Your task to perform on an android device: star an email in the gmail app Image 0: 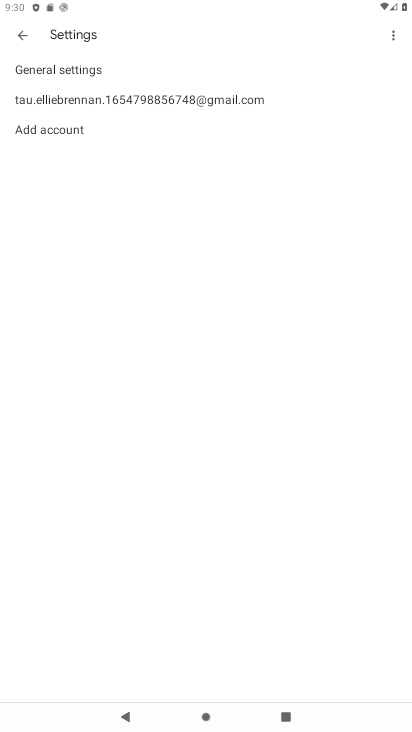
Step 0: press home button
Your task to perform on an android device: star an email in the gmail app Image 1: 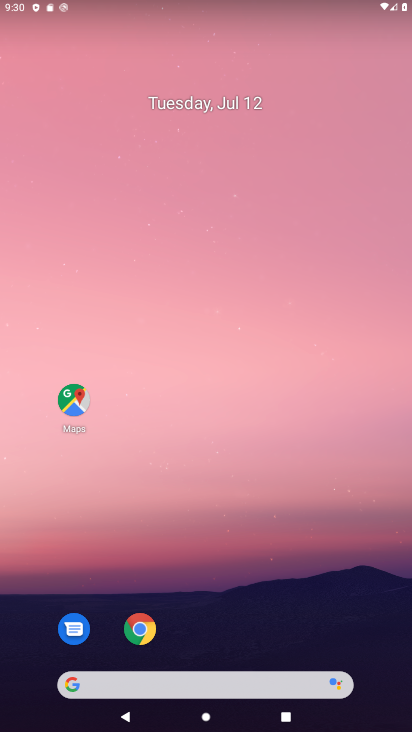
Step 1: drag from (224, 698) to (376, 56)
Your task to perform on an android device: star an email in the gmail app Image 2: 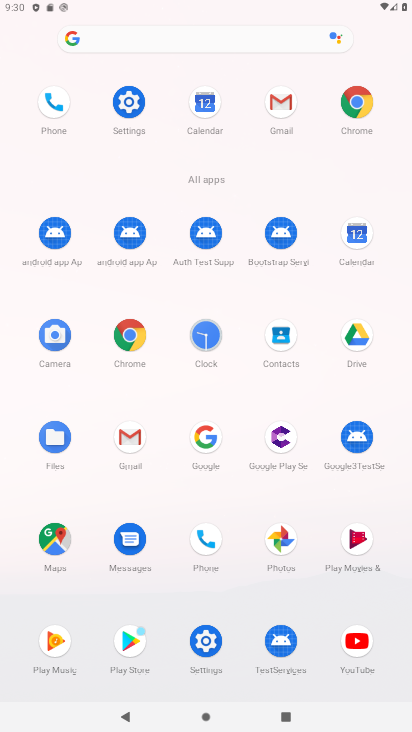
Step 2: click (134, 443)
Your task to perform on an android device: star an email in the gmail app Image 3: 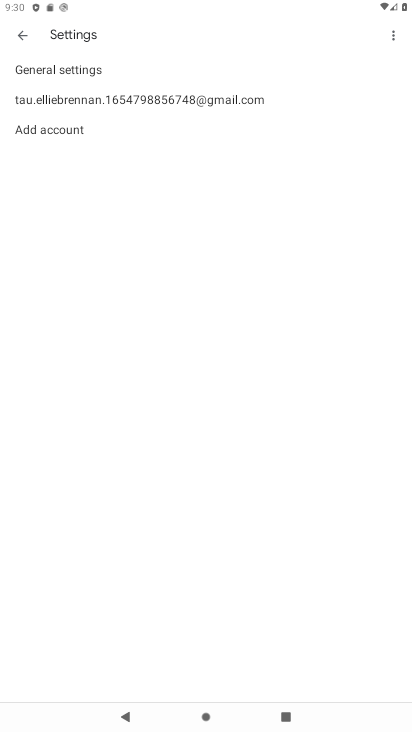
Step 3: press back button
Your task to perform on an android device: star an email in the gmail app Image 4: 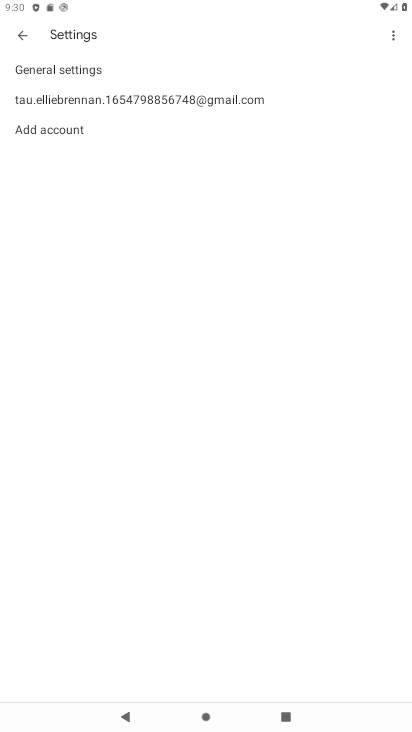
Step 4: press back button
Your task to perform on an android device: star an email in the gmail app Image 5: 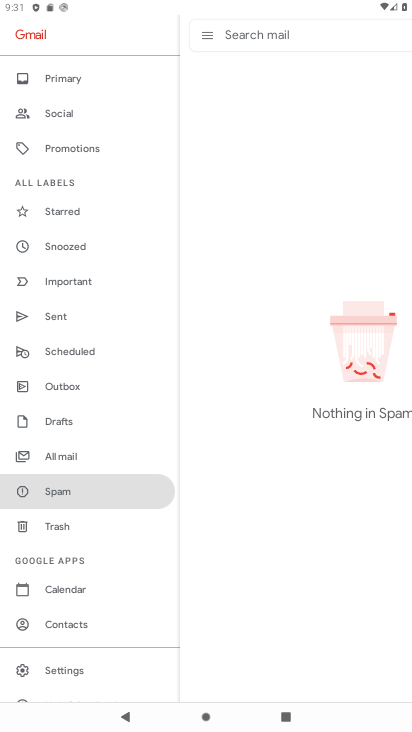
Step 5: click (72, 212)
Your task to perform on an android device: star an email in the gmail app Image 6: 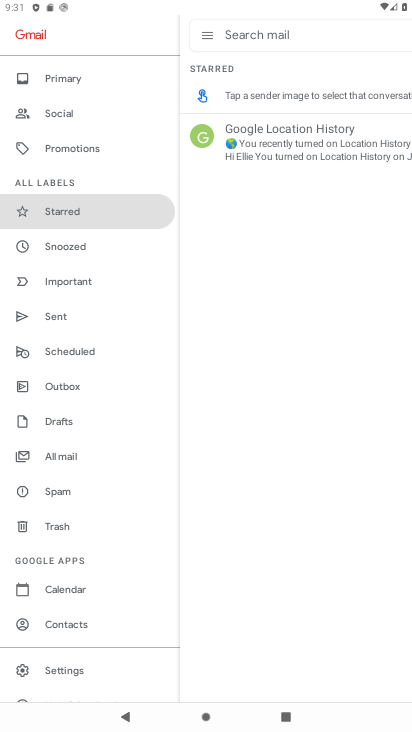
Step 6: task complete